Your task to perform on an android device: make emails show in primary in the gmail app Image 0: 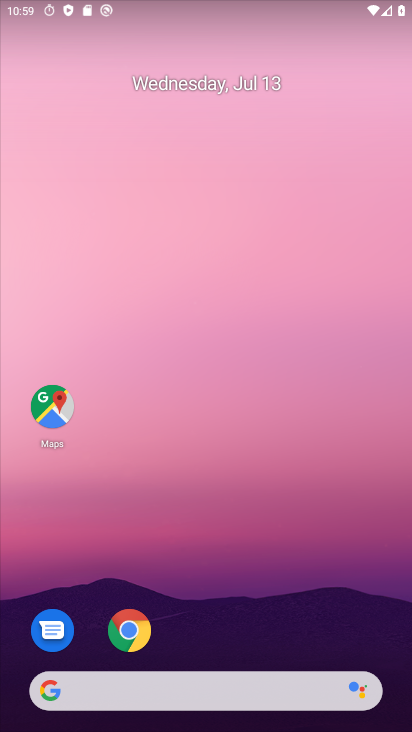
Step 0: drag from (202, 605) to (383, 36)
Your task to perform on an android device: make emails show in primary in the gmail app Image 1: 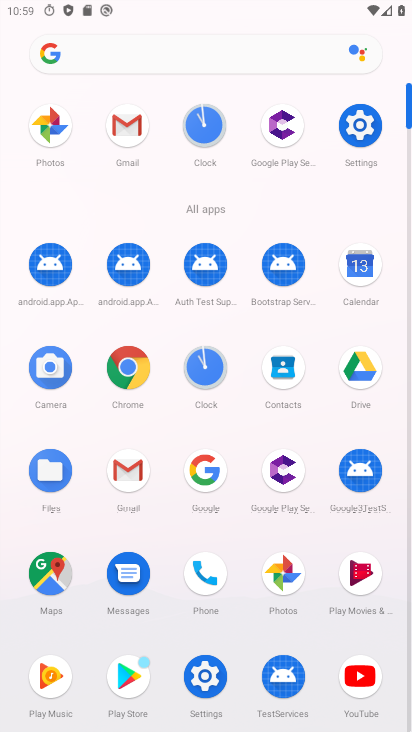
Step 1: click (136, 465)
Your task to perform on an android device: make emails show in primary in the gmail app Image 2: 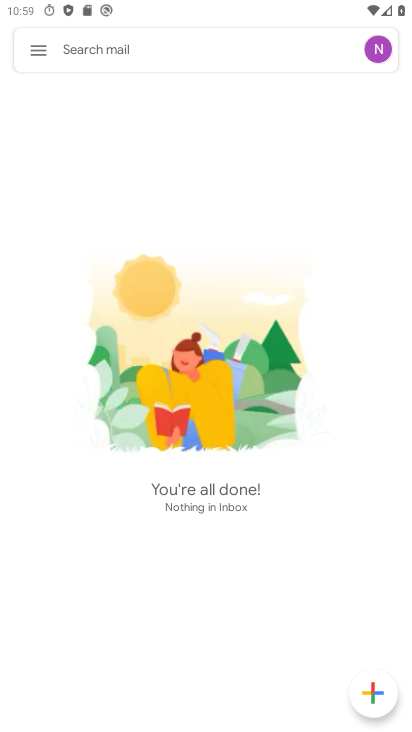
Step 2: click (51, 51)
Your task to perform on an android device: make emails show in primary in the gmail app Image 3: 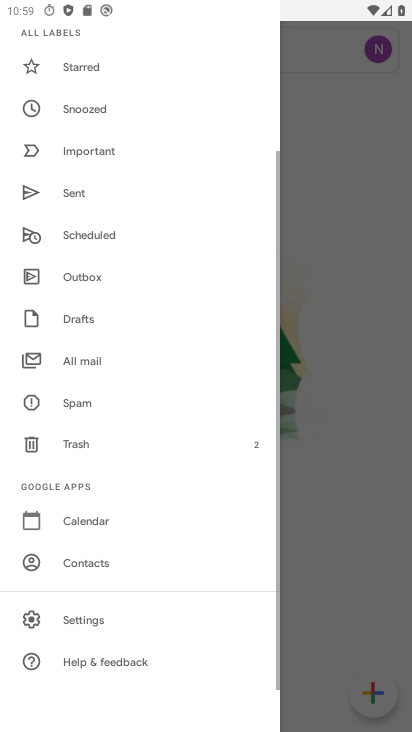
Step 3: drag from (123, 103) to (59, 610)
Your task to perform on an android device: make emails show in primary in the gmail app Image 4: 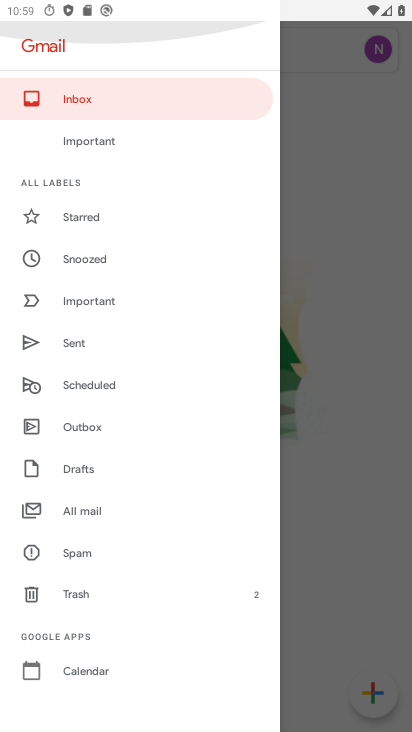
Step 4: drag from (74, 633) to (118, 375)
Your task to perform on an android device: make emails show in primary in the gmail app Image 5: 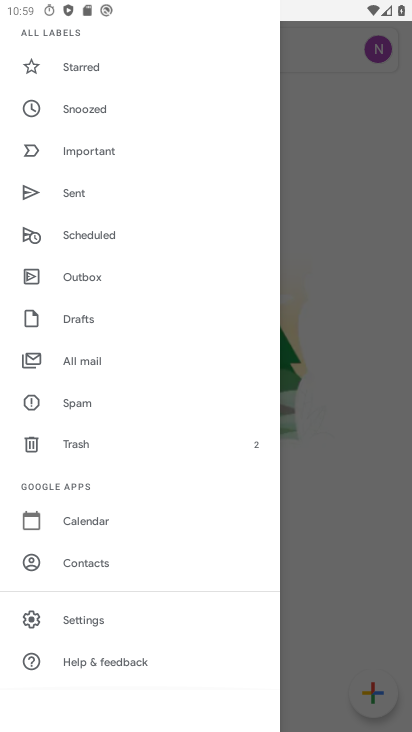
Step 5: click (79, 615)
Your task to perform on an android device: make emails show in primary in the gmail app Image 6: 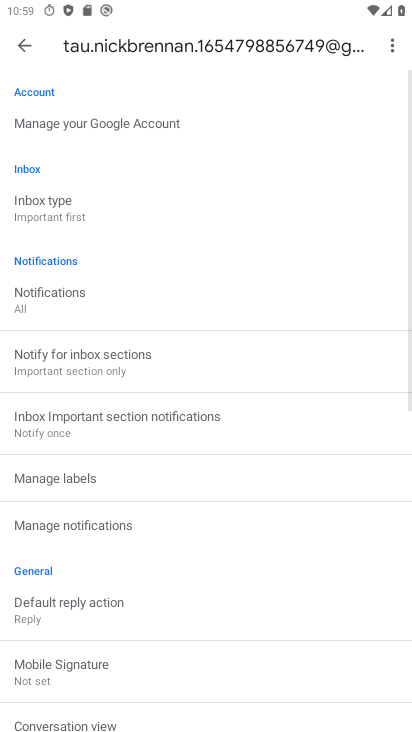
Step 6: click (109, 201)
Your task to perform on an android device: make emails show in primary in the gmail app Image 7: 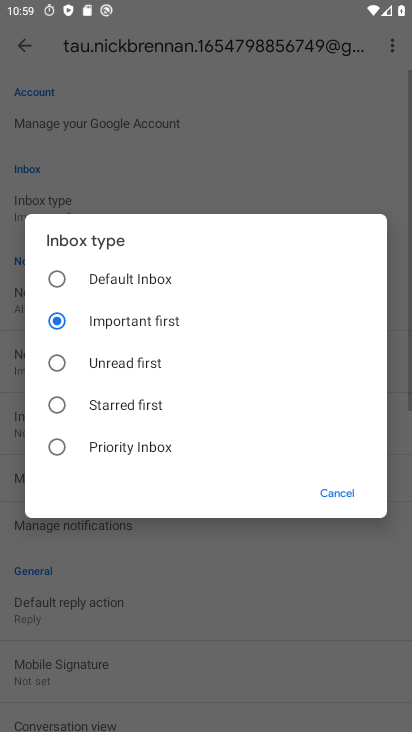
Step 7: click (116, 277)
Your task to perform on an android device: make emails show in primary in the gmail app Image 8: 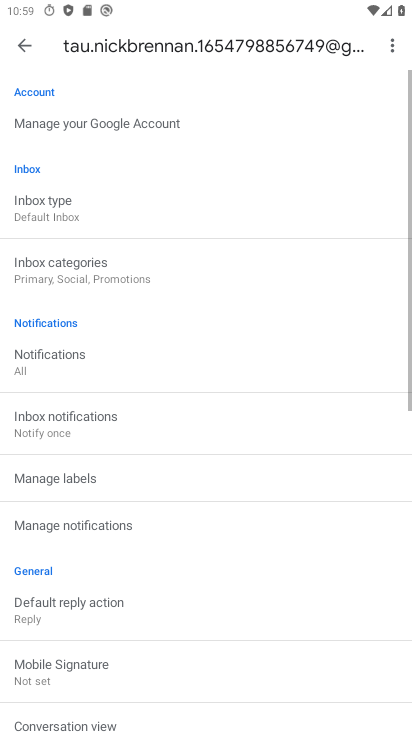
Step 8: click (132, 281)
Your task to perform on an android device: make emails show in primary in the gmail app Image 9: 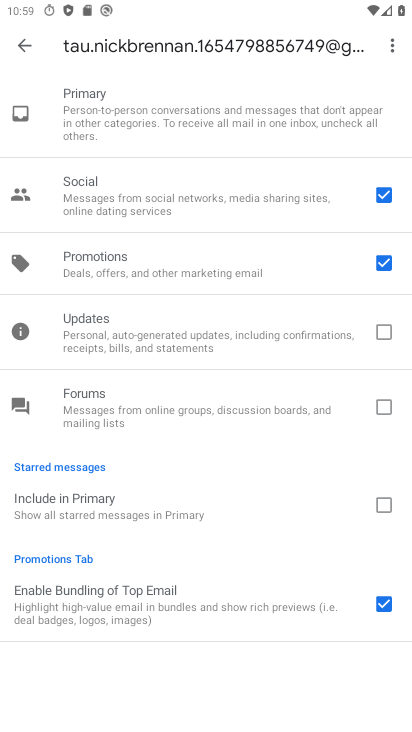
Step 9: click (393, 507)
Your task to perform on an android device: make emails show in primary in the gmail app Image 10: 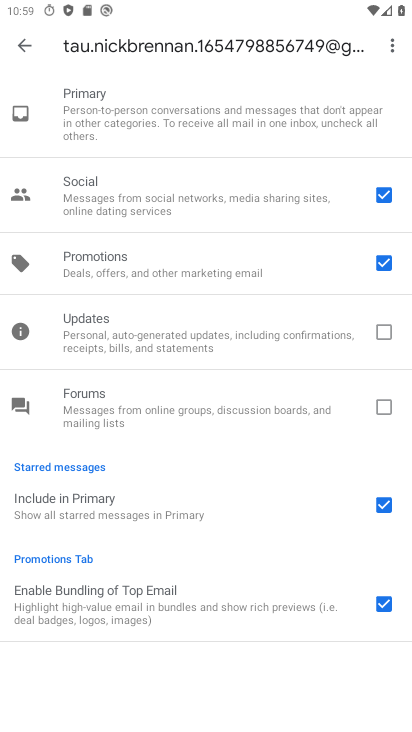
Step 10: click (153, 108)
Your task to perform on an android device: make emails show in primary in the gmail app Image 11: 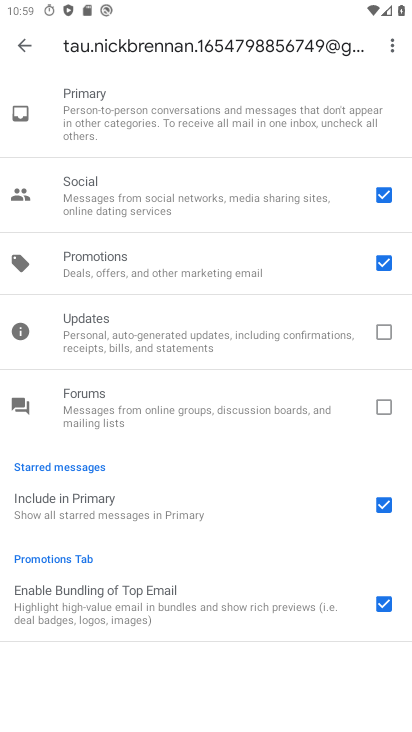
Step 11: task complete